Your task to perform on an android device: change timer sound Image 0: 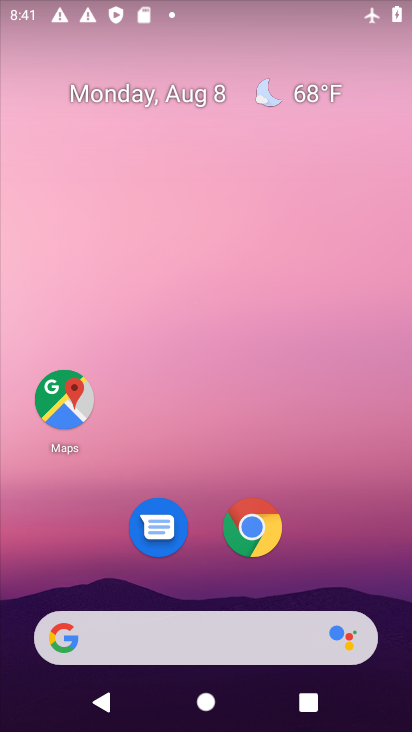
Step 0: drag from (383, 707) to (344, 167)
Your task to perform on an android device: change timer sound Image 1: 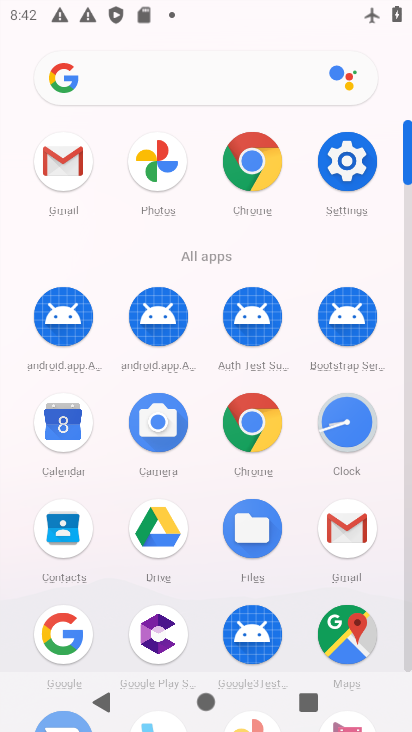
Step 1: click (353, 413)
Your task to perform on an android device: change timer sound Image 2: 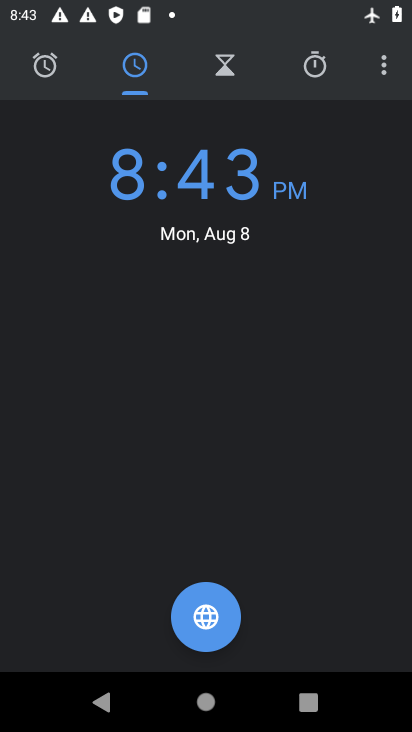
Step 2: click (321, 67)
Your task to perform on an android device: change timer sound Image 3: 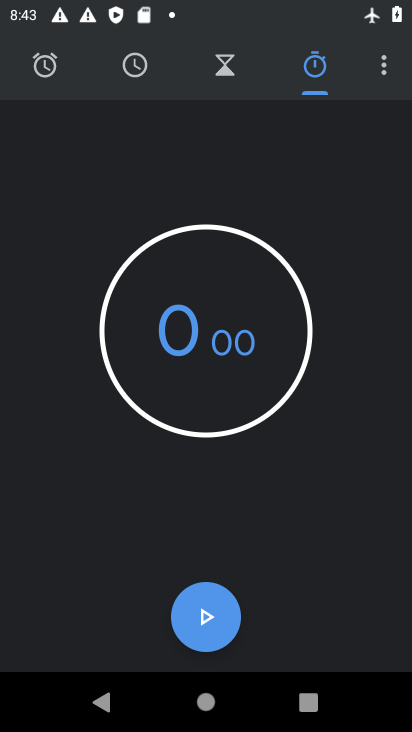
Step 3: click (387, 64)
Your task to perform on an android device: change timer sound Image 4: 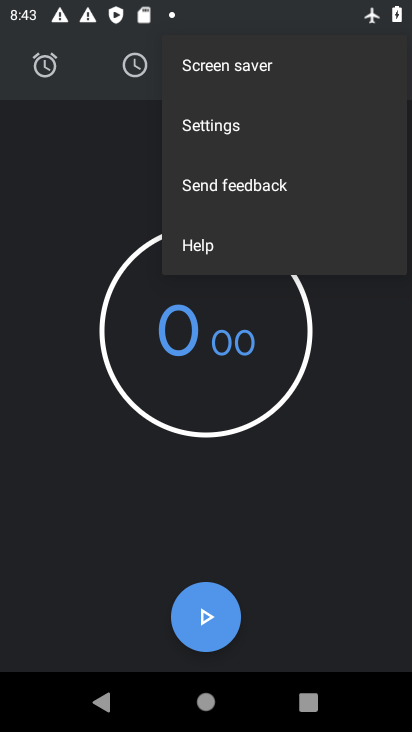
Step 4: click (251, 125)
Your task to perform on an android device: change timer sound Image 5: 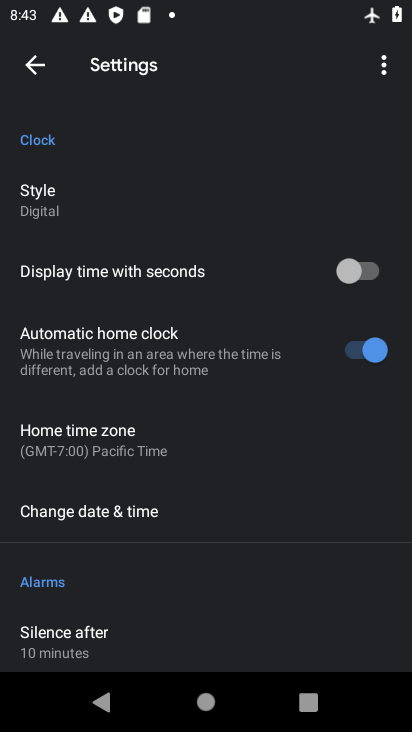
Step 5: drag from (210, 580) to (222, 261)
Your task to perform on an android device: change timer sound Image 6: 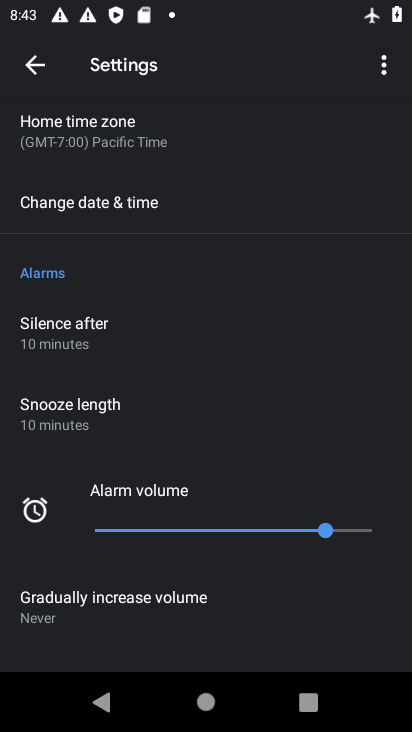
Step 6: drag from (191, 578) to (185, 317)
Your task to perform on an android device: change timer sound Image 7: 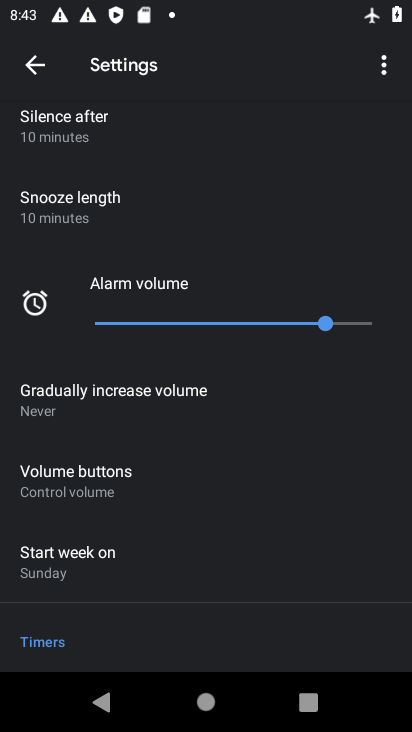
Step 7: drag from (205, 562) to (254, 254)
Your task to perform on an android device: change timer sound Image 8: 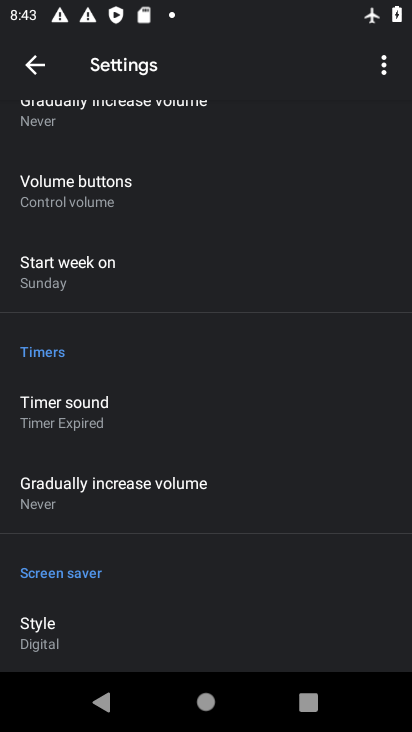
Step 8: click (44, 417)
Your task to perform on an android device: change timer sound Image 9: 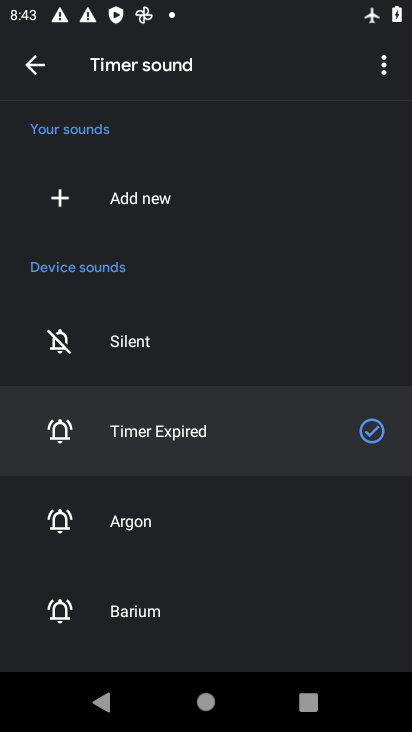
Step 9: click (125, 521)
Your task to perform on an android device: change timer sound Image 10: 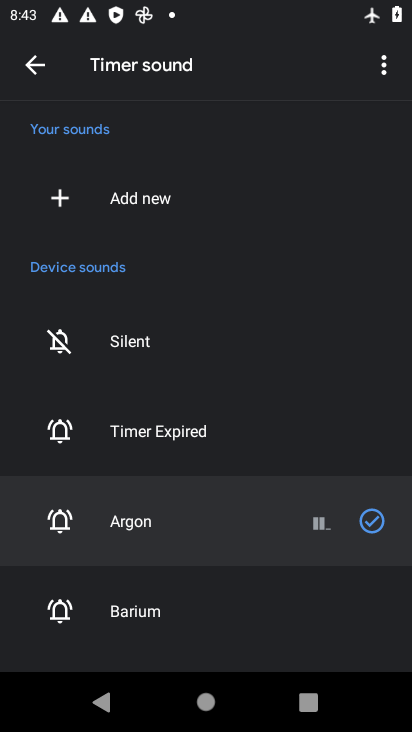
Step 10: task complete